Your task to perform on an android device: Toggle the flashlight Image 0: 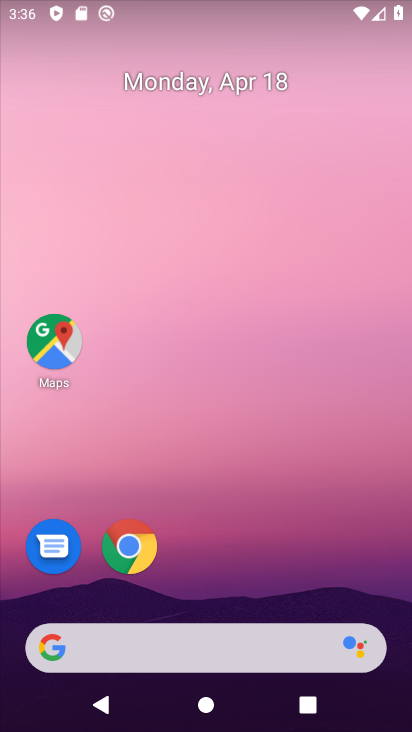
Step 0: drag from (243, 6) to (257, 399)
Your task to perform on an android device: Toggle the flashlight Image 1: 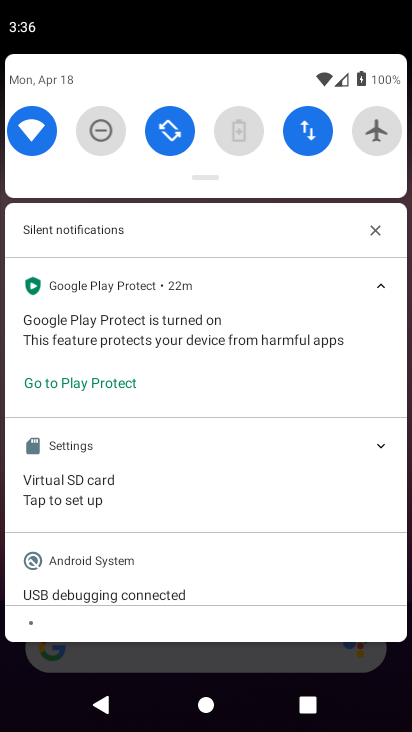
Step 1: task complete